Your task to perform on an android device: What's the US dollar exchange rate against the Canadian Dollar? Image 0: 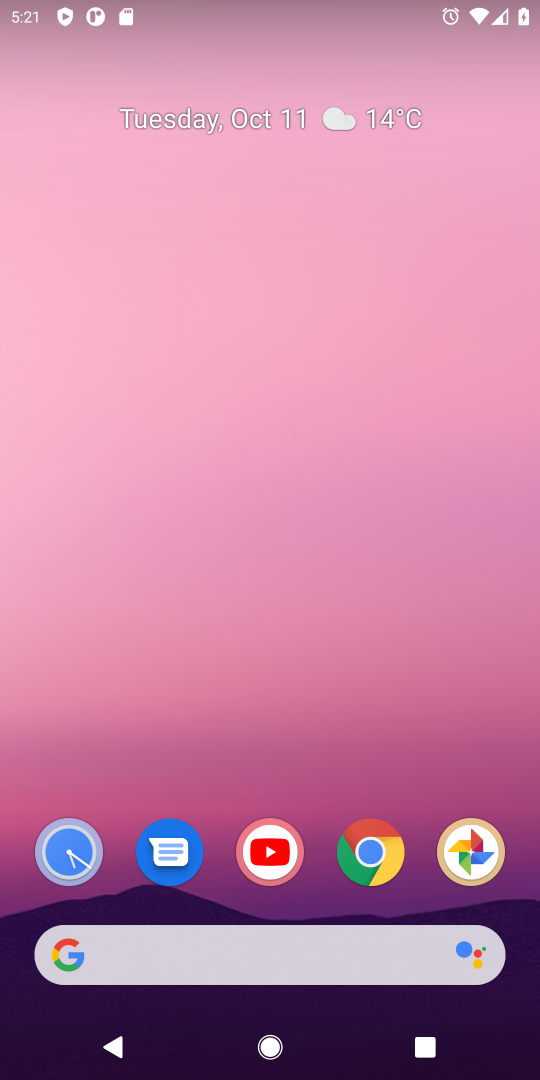
Step 0: click (358, 843)
Your task to perform on an android device: What's the US dollar exchange rate against the Canadian Dollar? Image 1: 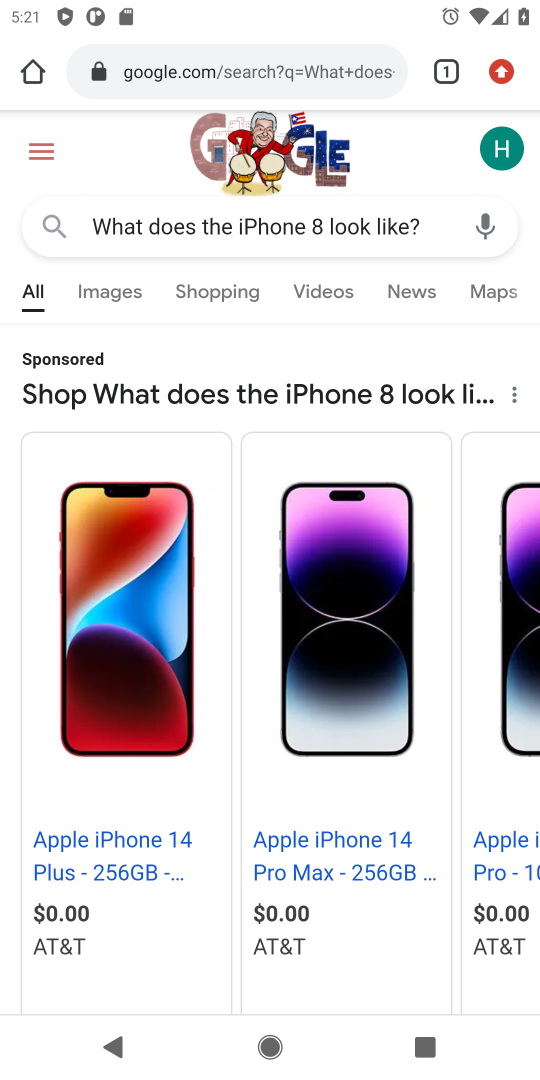
Step 1: click (343, 90)
Your task to perform on an android device: What's the US dollar exchange rate against the Canadian Dollar? Image 2: 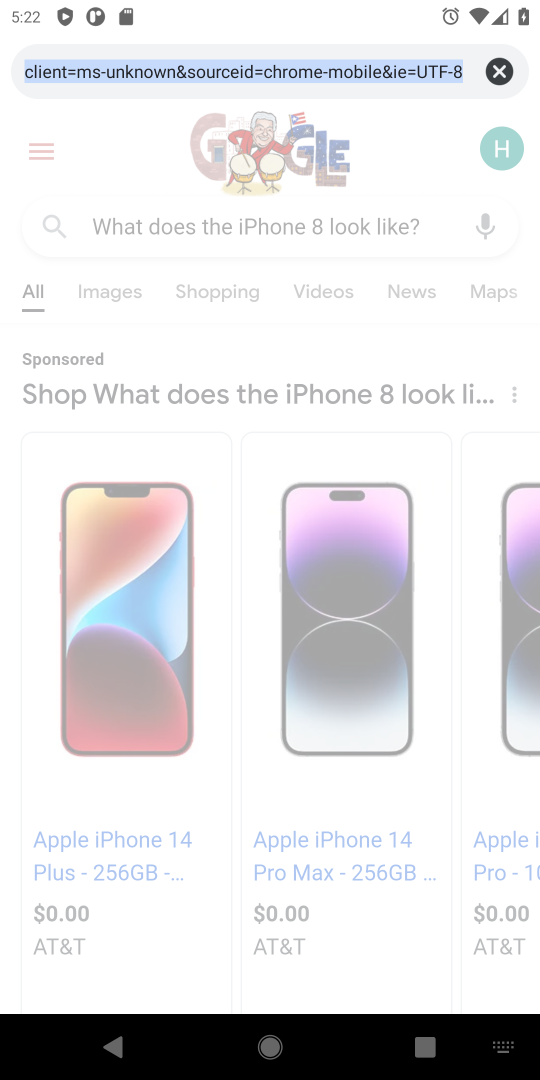
Step 2: type "What's the US dollar exchange rate against the Canadian Dollar?"
Your task to perform on an android device: What's the US dollar exchange rate against the Canadian Dollar? Image 3: 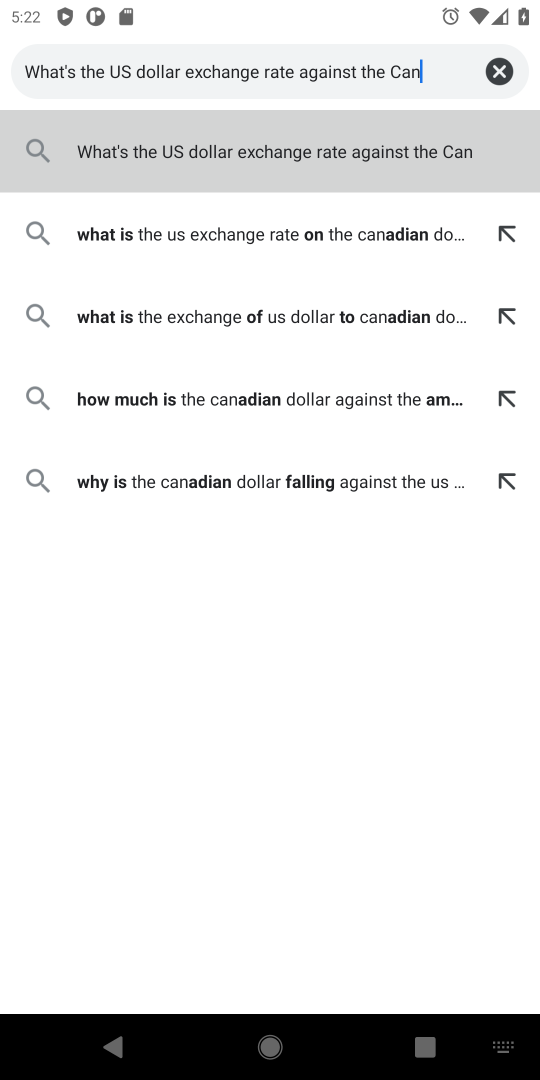
Step 3: type "adian dollar"
Your task to perform on an android device: What's the US dollar exchange rate against the Canadian Dollar? Image 4: 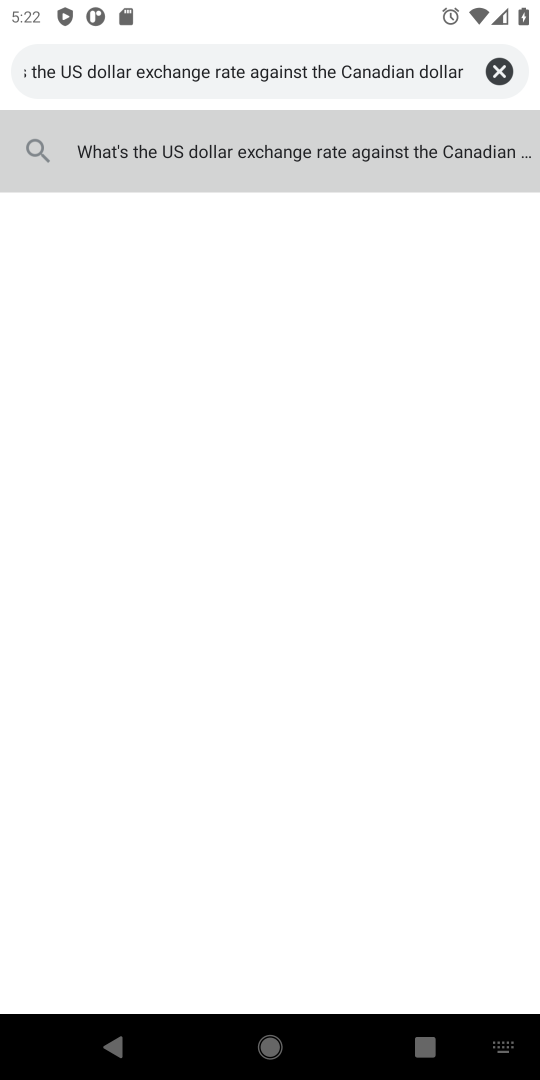
Step 4: click (371, 136)
Your task to perform on an android device: What's the US dollar exchange rate against the Canadian Dollar? Image 5: 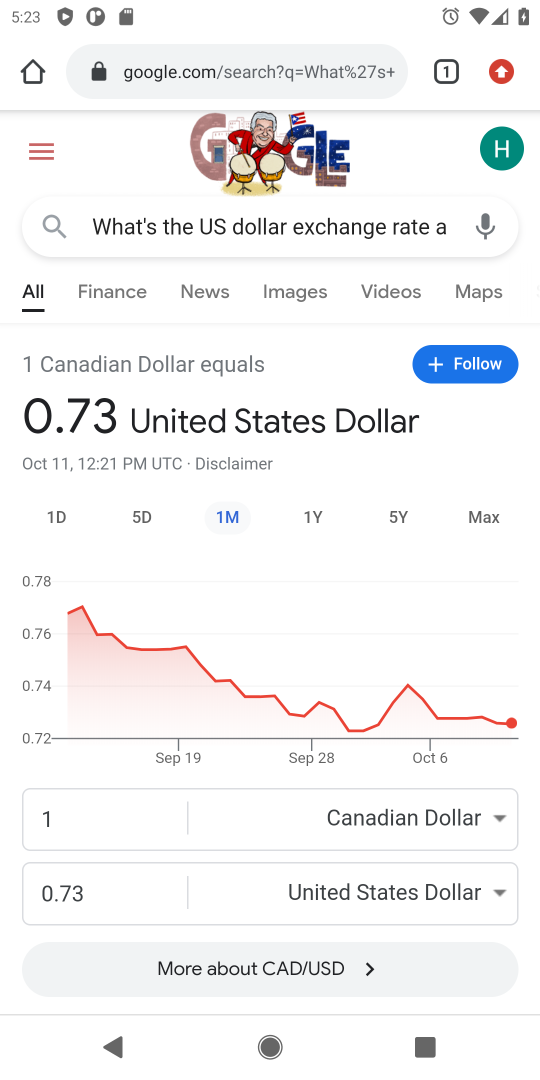
Step 5: task complete